Your task to perform on an android device: change the clock display to show seconds Image 0: 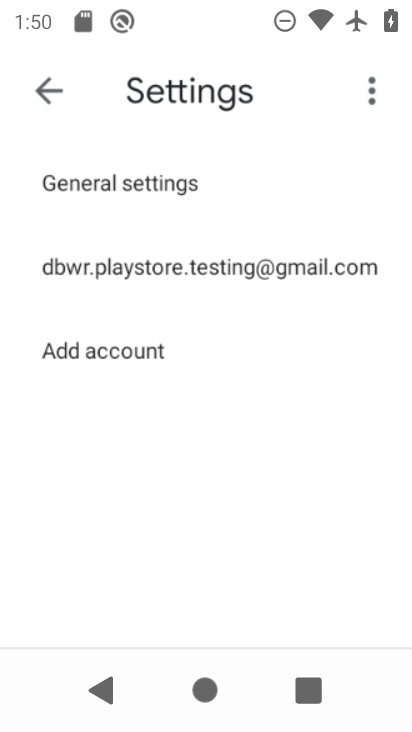
Step 0: drag from (307, 467) to (302, 114)
Your task to perform on an android device: change the clock display to show seconds Image 1: 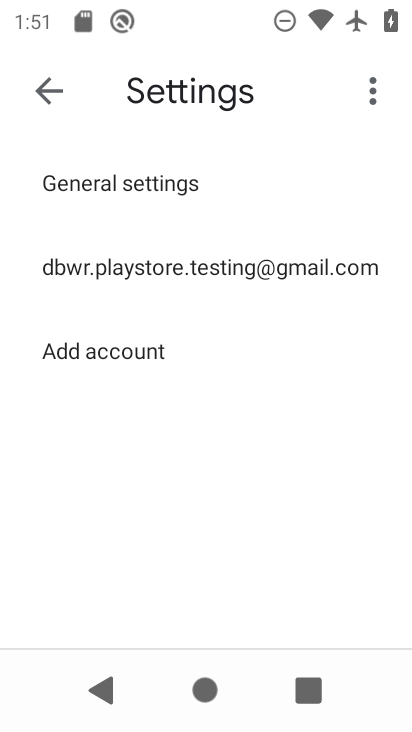
Step 1: click (43, 75)
Your task to perform on an android device: change the clock display to show seconds Image 2: 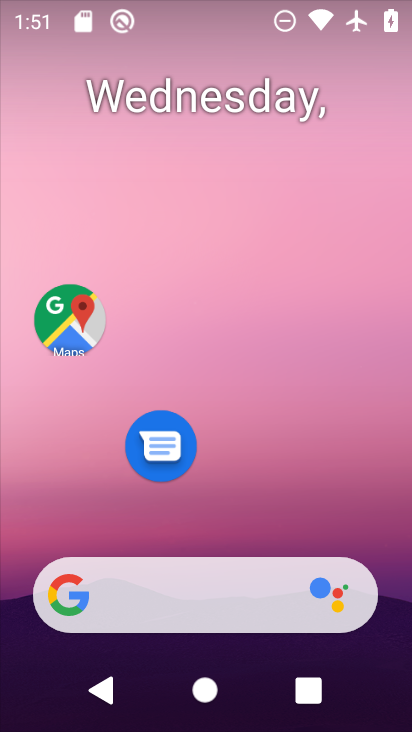
Step 2: drag from (265, 494) to (277, 225)
Your task to perform on an android device: change the clock display to show seconds Image 3: 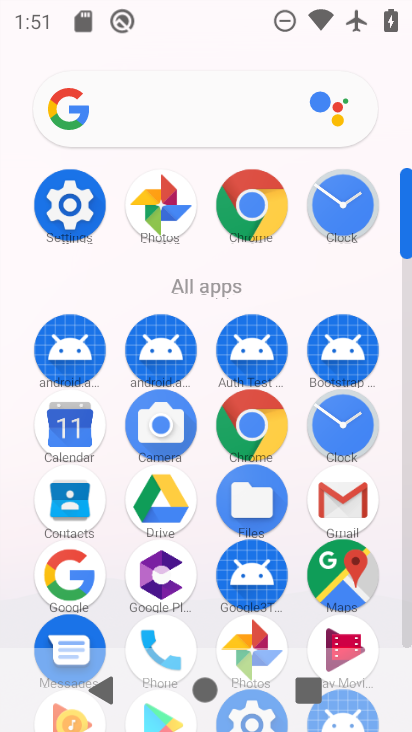
Step 3: click (334, 232)
Your task to perform on an android device: change the clock display to show seconds Image 4: 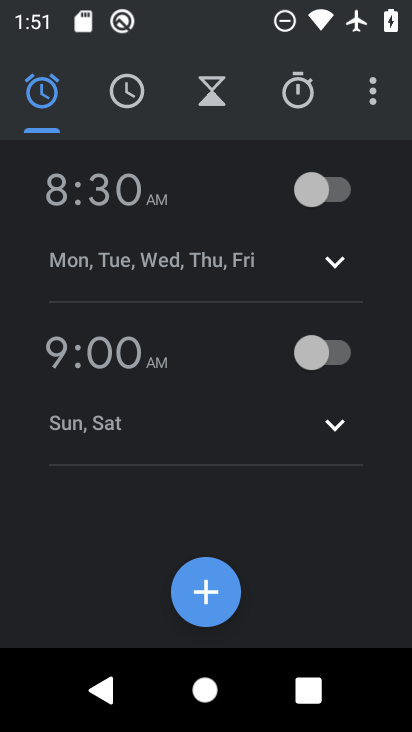
Step 4: click (367, 111)
Your task to perform on an android device: change the clock display to show seconds Image 5: 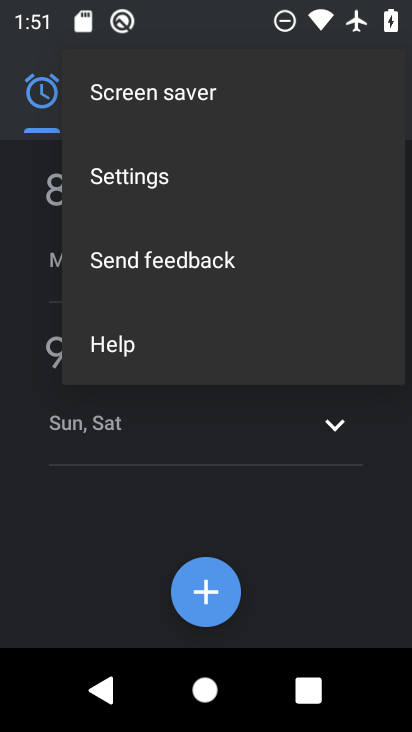
Step 5: click (241, 197)
Your task to perform on an android device: change the clock display to show seconds Image 6: 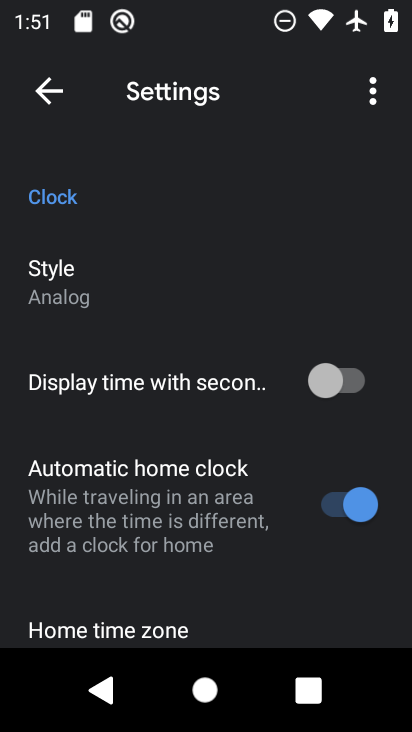
Step 6: click (267, 392)
Your task to perform on an android device: change the clock display to show seconds Image 7: 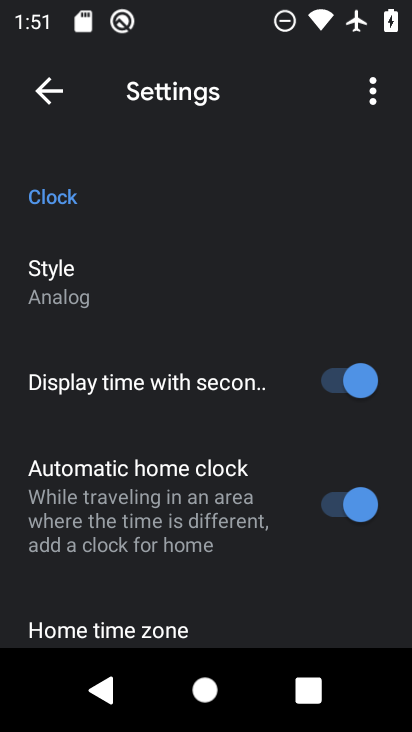
Step 7: task complete